Your task to perform on an android device: Open calendar and show me the fourth week of next month Image 0: 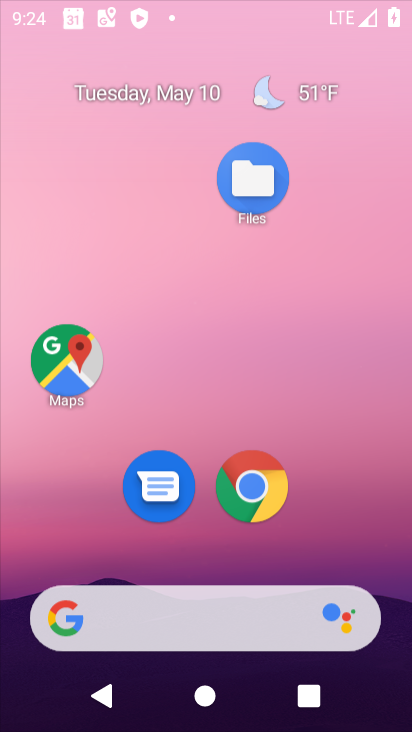
Step 0: click (257, 486)
Your task to perform on an android device: Open calendar and show me the fourth week of next month Image 1: 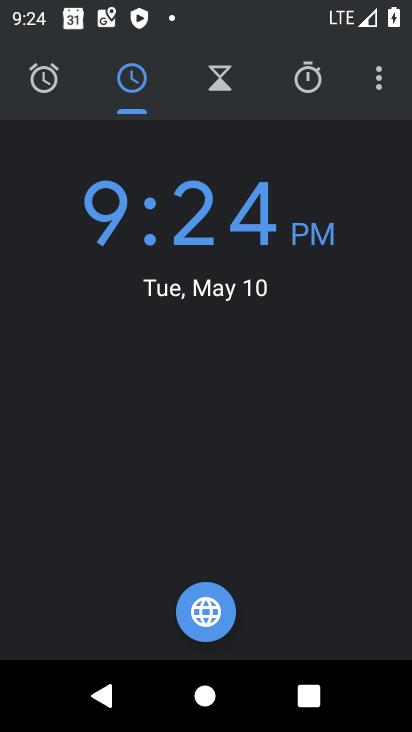
Step 1: drag from (142, 607) to (124, 163)
Your task to perform on an android device: Open calendar and show me the fourth week of next month Image 2: 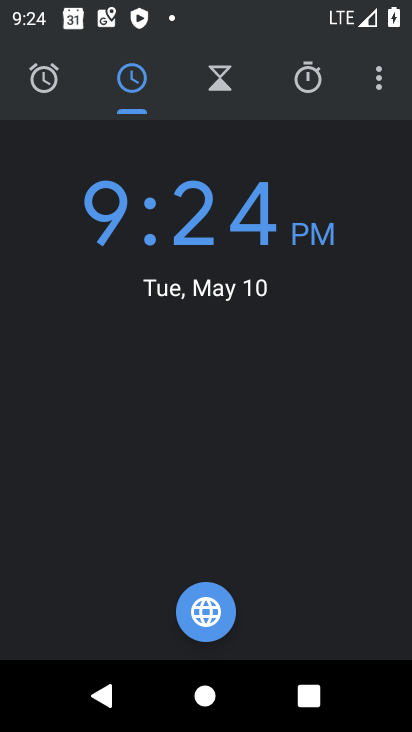
Step 2: press home button
Your task to perform on an android device: Open calendar and show me the fourth week of next month Image 3: 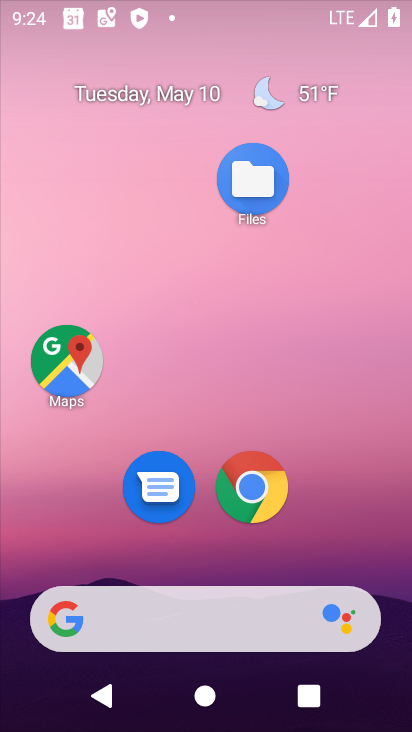
Step 3: drag from (195, 566) to (209, 28)
Your task to perform on an android device: Open calendar and show me the fourth week of next month Image 4: 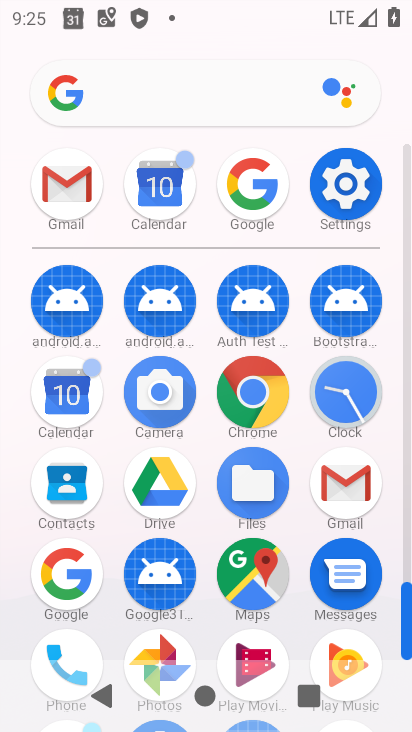
Step 4: click (63, 378)
Your task to perform on an android device: Open calendar and show me the fourth week of next month Image 5: 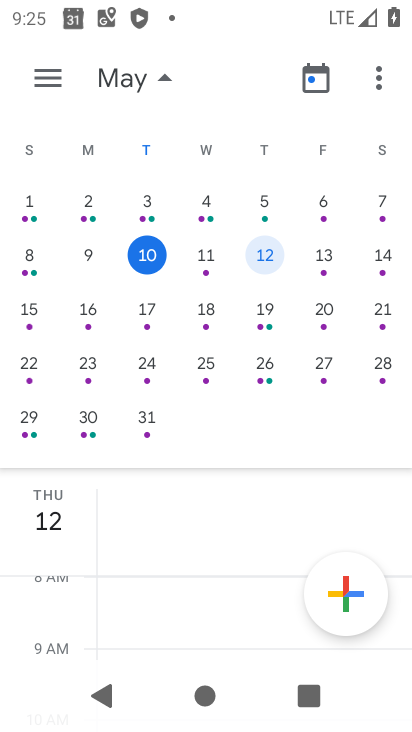
Step 5: drag from (400, 442) to (29, 332)
Your task to perform on an android device: Open calendar and show me the fourth week of next month Image 6: 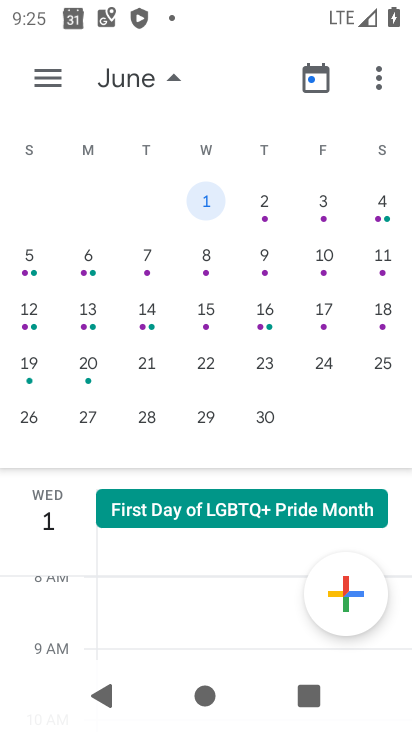
Step 6: click (206, 362)
Your task to perform on an android device: Open calendar and show me the fourth week of next month Image 7: 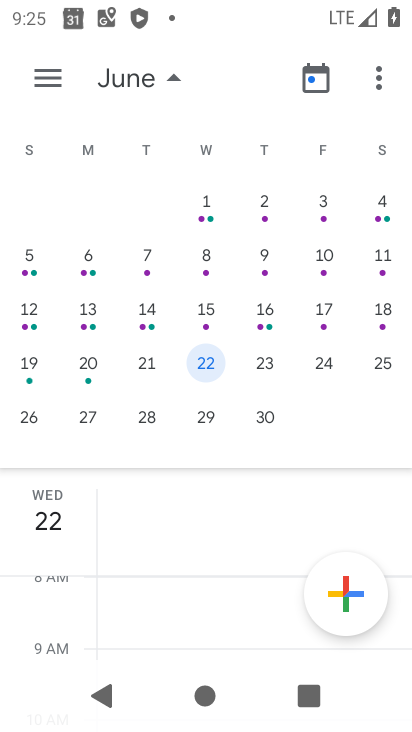
Step 7: task complete